Your task to perform on an android device: see tabs open on other devices in the chrome app Image 0: 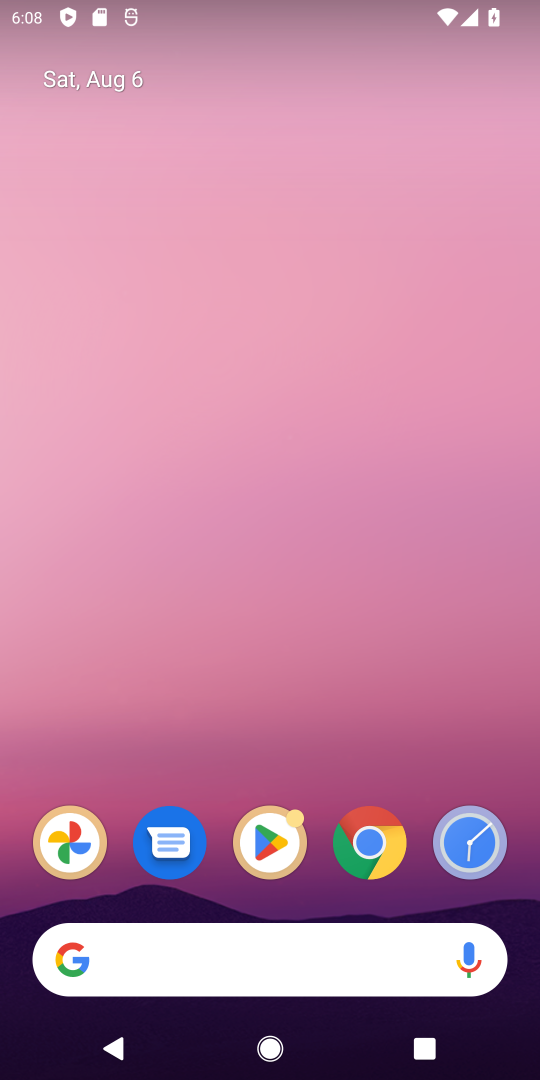
Step 0: click (365, 838)
Your task to perform on an android device: see tabs open on other devices in the chrome app Image 1: 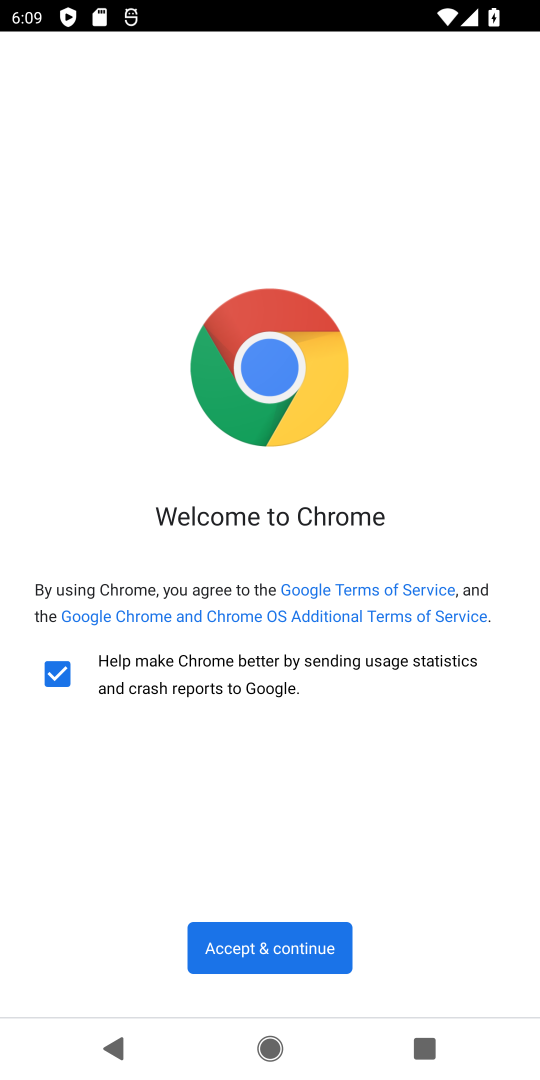
Step 1: click (299, 933)
Your task to perform on an android device: see tabs open on other devices in the chrome app Image 2: 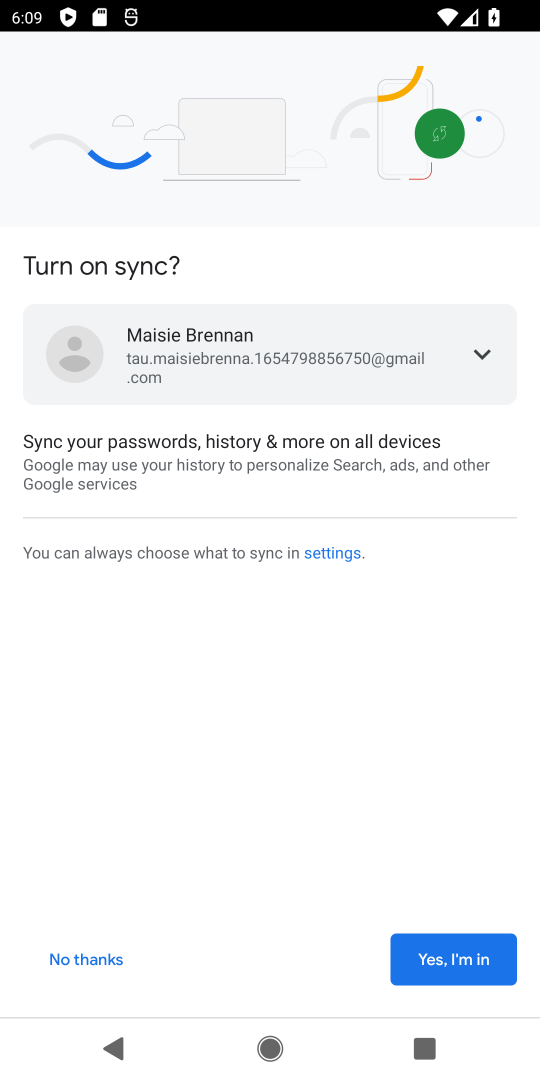
Step 2: click (431, 965)
Your task to perform on an android device: see tabs open on other devices in the chrome app Image 3: 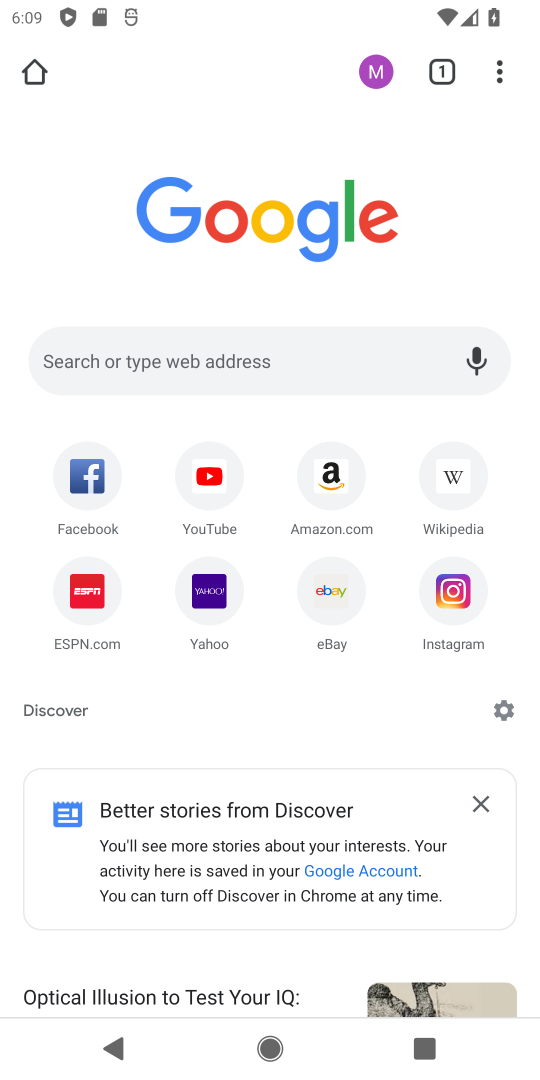
Step 3: click (500, 70)
Your task to perform on an android device: see tabs open on other devices in the chrome app Image 4: 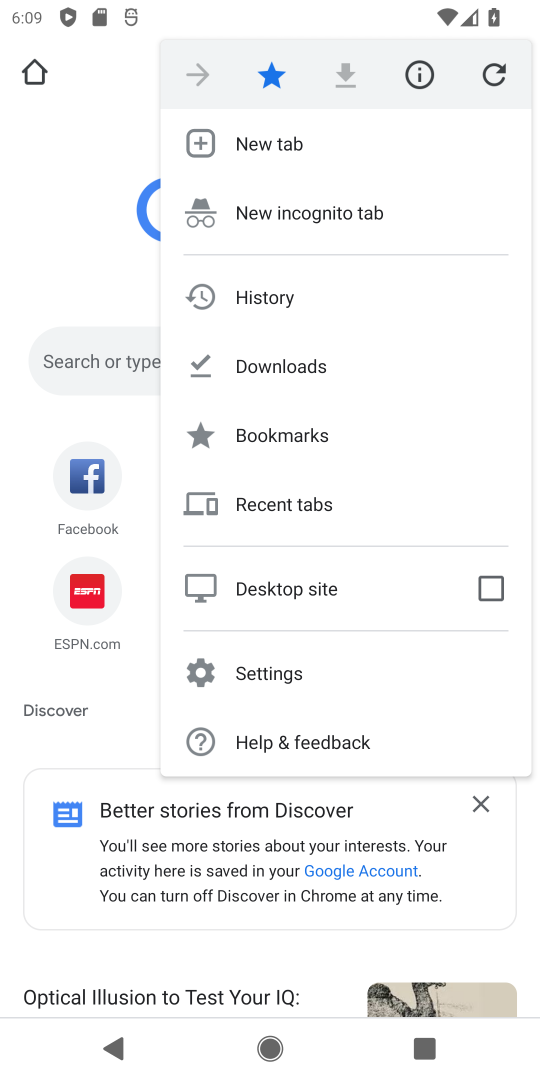
Step 4: click (293, 504)
Your task to perform on an android device: see tabs open on other devices in the chrome app Image 5: 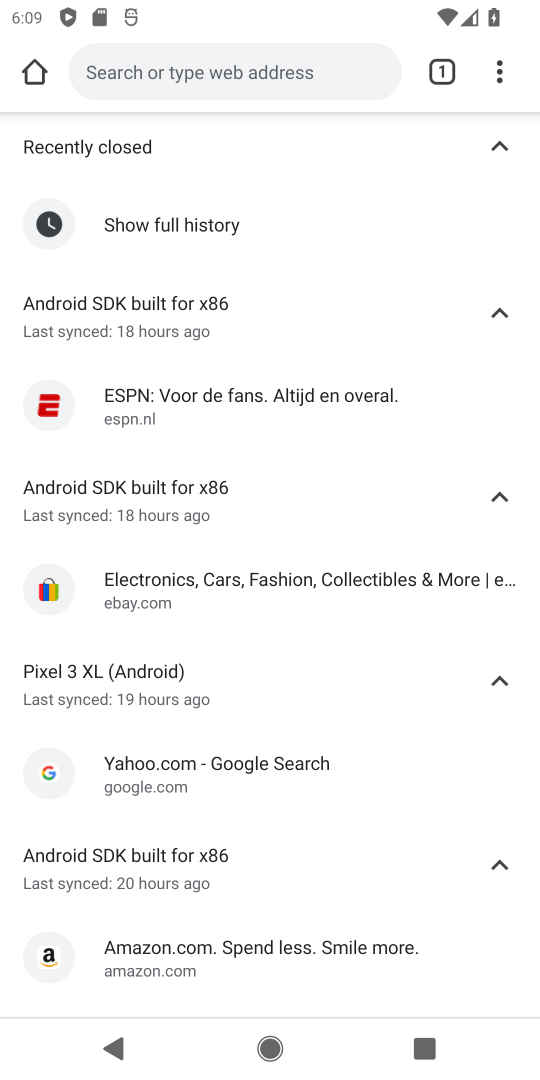
Step 5: task complete